Your task to perform on an android device: Open Wikipedia Image 0: 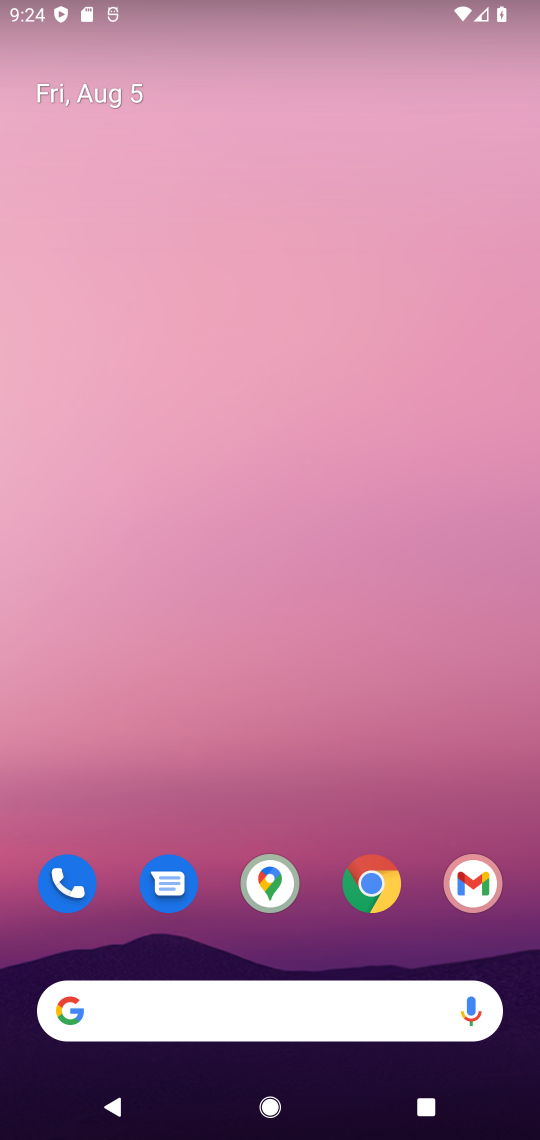
Step 0: click (376, 885)
Your task to perform on an android device: Open Wikipedia Image 1: 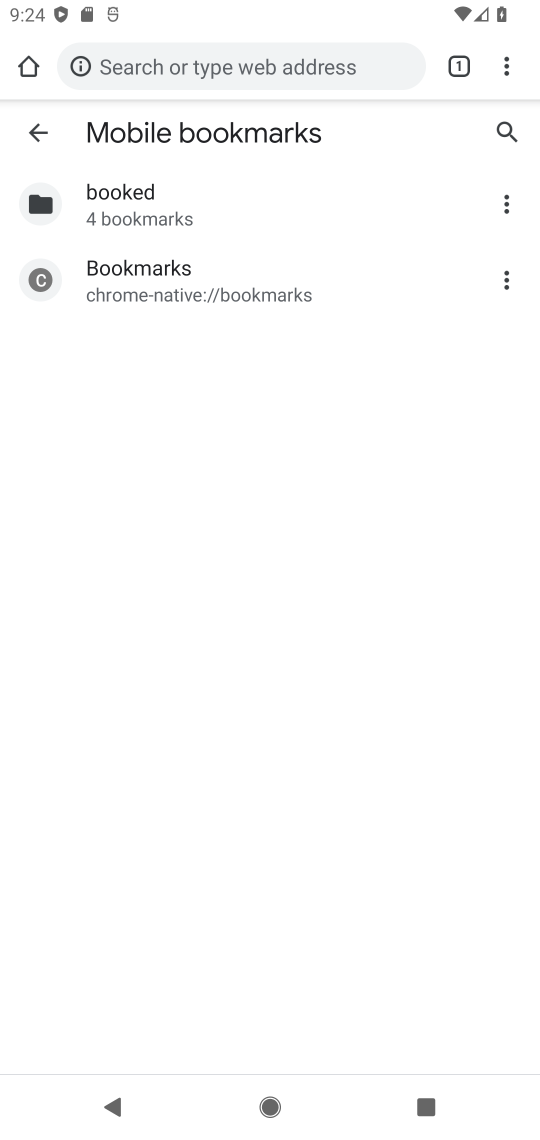
Step 1: click (458, 64)
Your task to perform on an android device: Open Wikipedia Image 2: 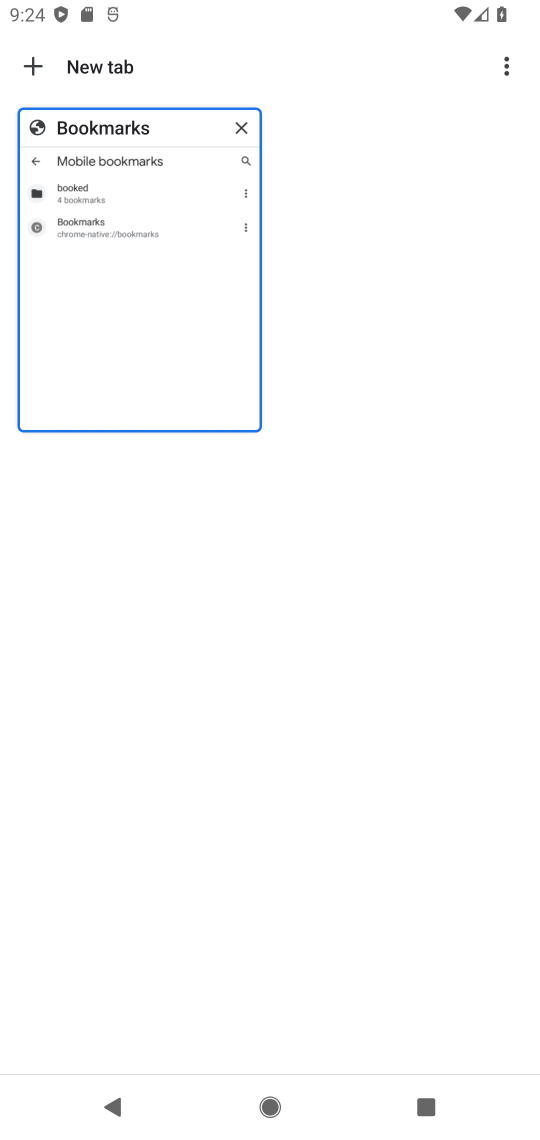
Step 2: click (38, 61)
Your task to perform on an android device: Open Wikipedia Image 3: 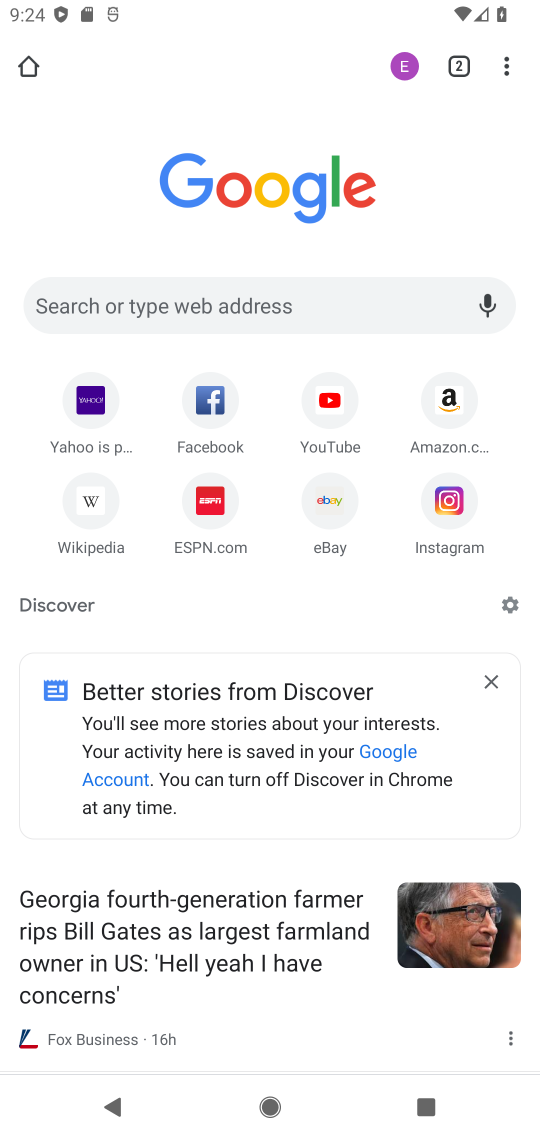
Step 3: click (76, 501)
Your task to perform on an android device: Open Wikipedia Image 4: 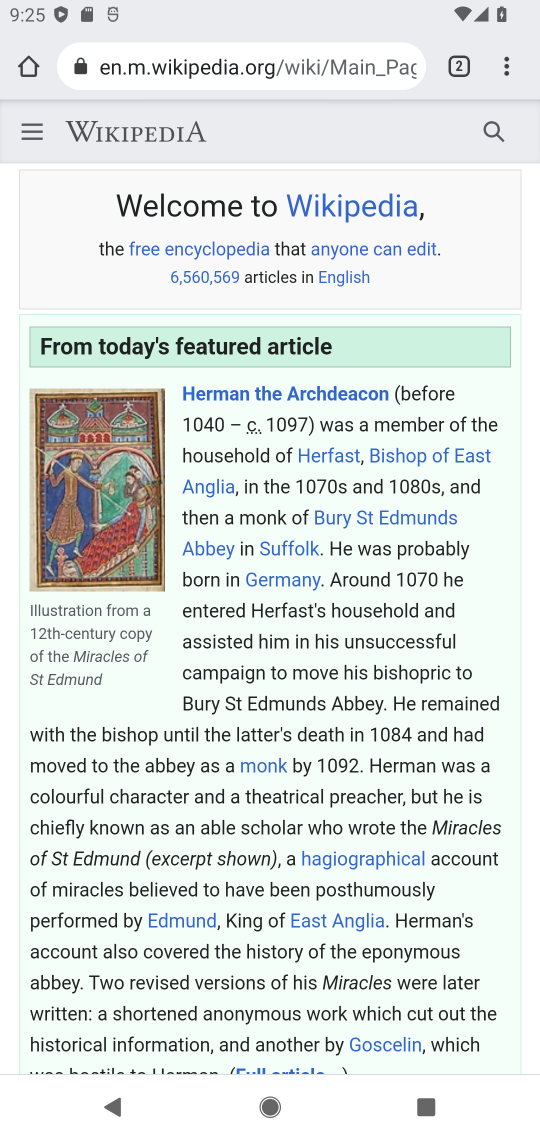
Step 4: task complete